Your task to perform on an android device: Go to display settings Image 0: 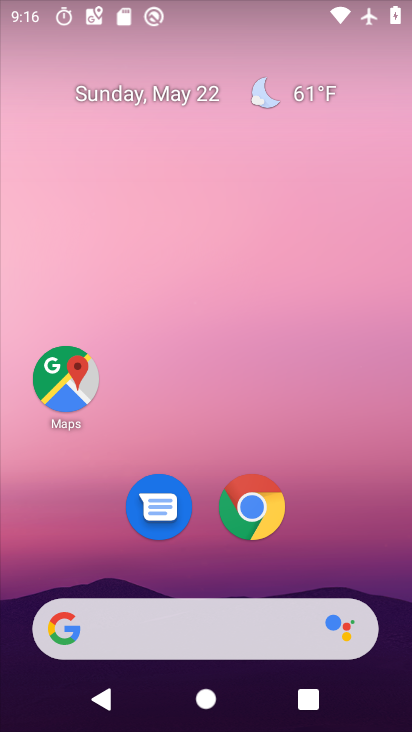
Step 0: drag from (190, 575) to (347, 21)
Your task to perform on an android device: Go to display settings Image 1: 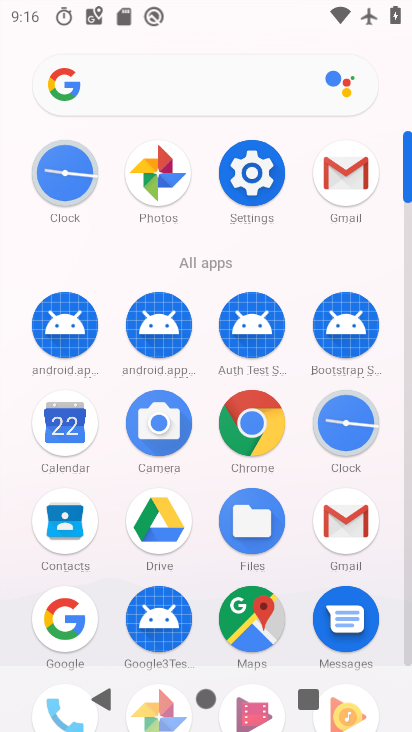
Step 1: click (240, 168)
Your task to perform on an android device: Go to display settings Image 2: 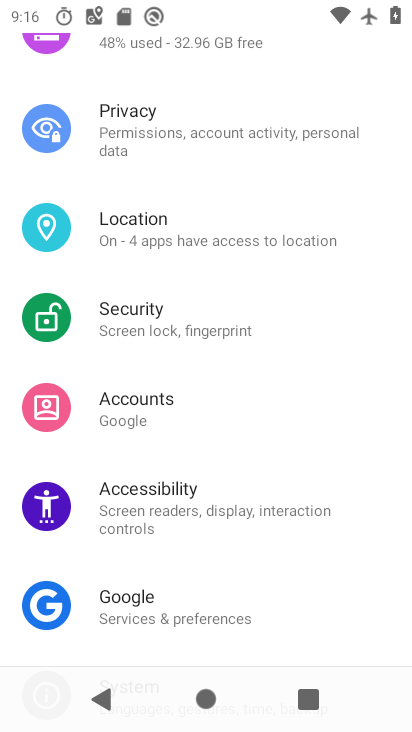
Step 2: drag from (206, 523) to (276, 20)
Your task to perform on an android device: Go to display settings Image 3: 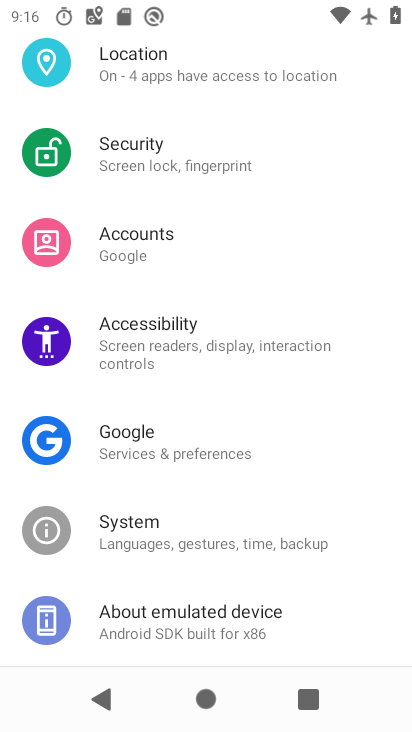
Step 3: drag from (257, 198) to (154, 584)
Your task to perform on an android device: Go to display settings Image 4: 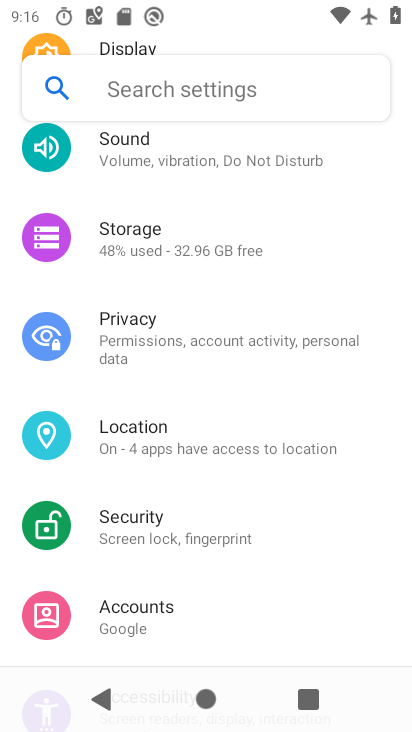
Step 4: drag from (235, 202) to (116, 636)
Your task to perform on an android device: Go to display settings Image 5: 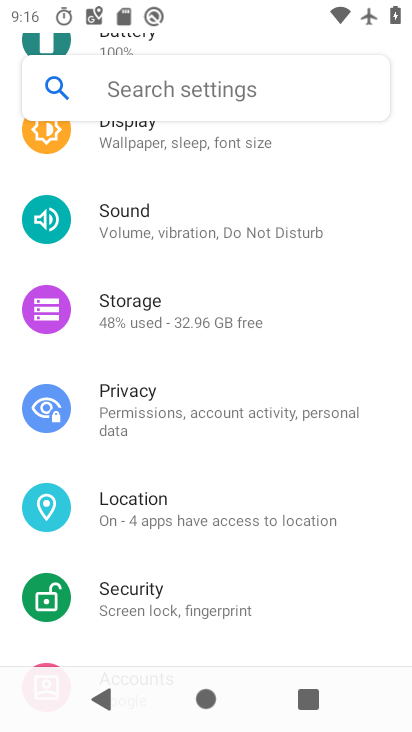
Step 5: click (160, 141)
Your task to perform on an android device: Go to display settings Image 6: 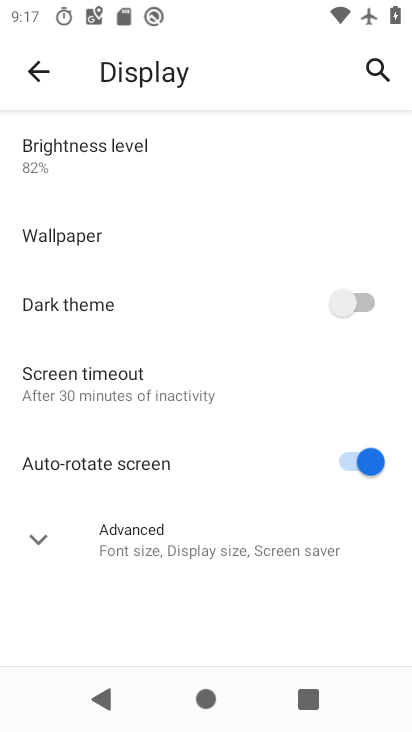
Step 6: task complete